Your task to perform on an android device: add a contact Image 0: 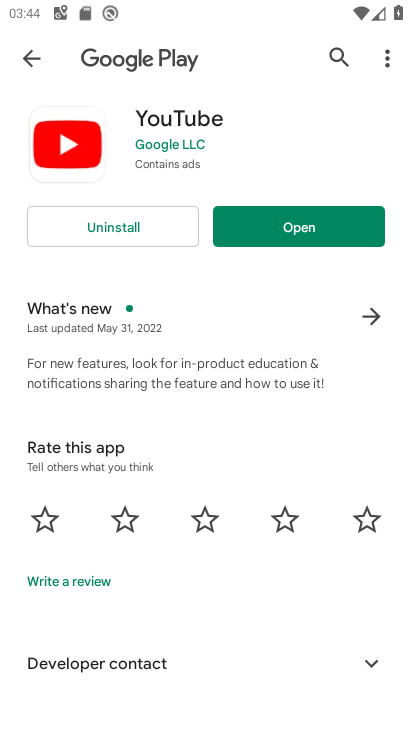
Step 0: press home button
Your task to perform on an android device: add a contact Image 1: 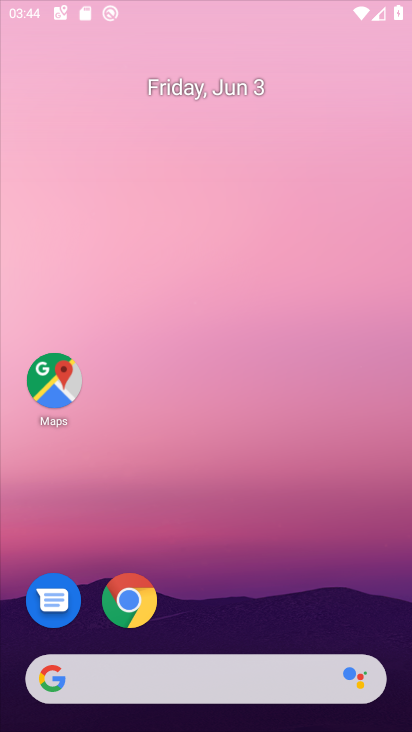
Step 1: drag from (293, 537) to (320, 48)
Your task to perform on an android device: add a contact Image 2: 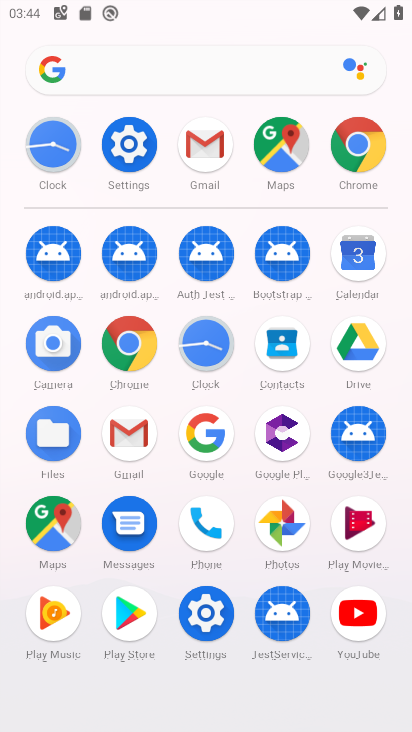
Step 2: click (373, 260)
Your task to perform on an android device: add a contact Image 3: 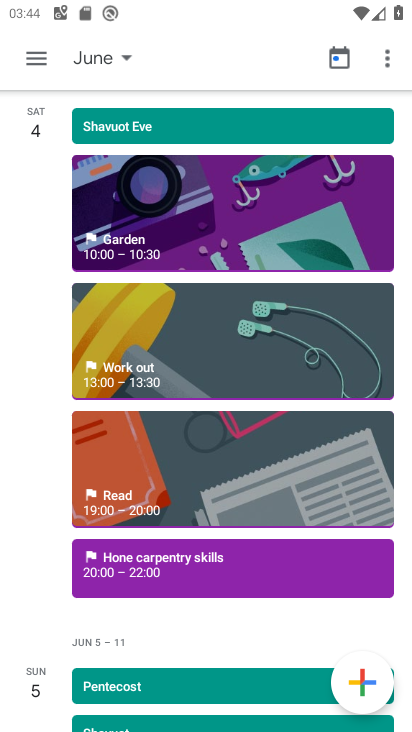
Step 3: press home button
Your task to perform on an android device: add a contact Image 4: 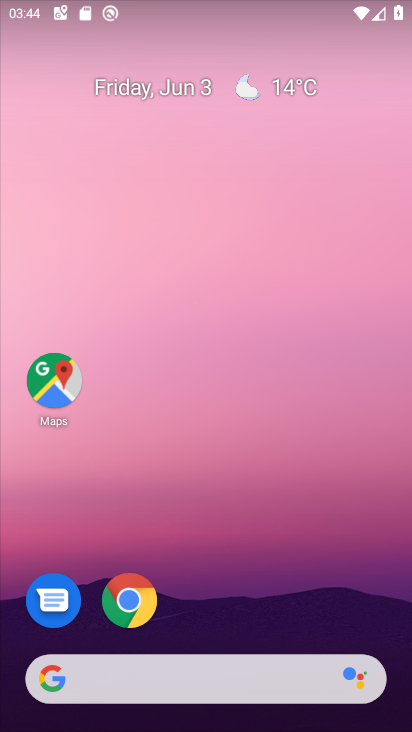
Step 4: drag from (288, 584) to (291, 152)
Your task to perform on an android device: add a contact Image 5: 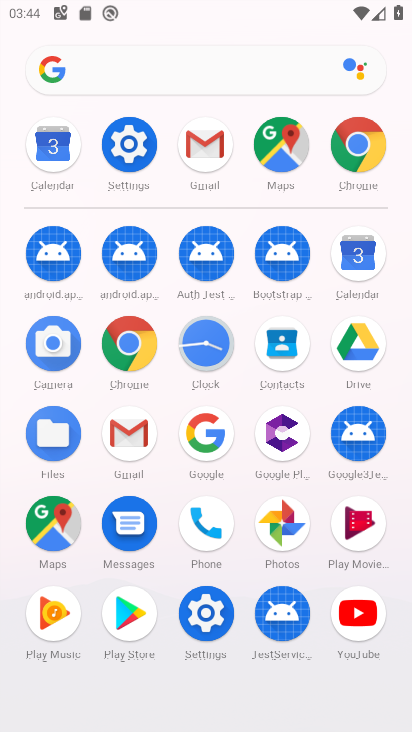
Step 5: click (286, 351)
Your task to perform on an android device: add a contact Image 6: 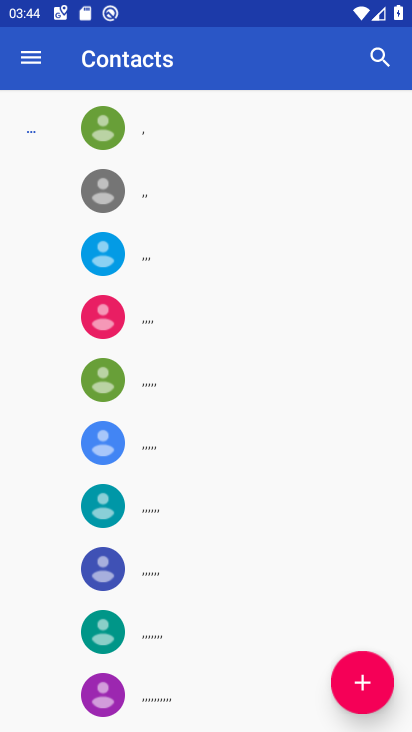
Step 6: click (353, 690)
Your task to perform on an android device: add a contact Image 7: 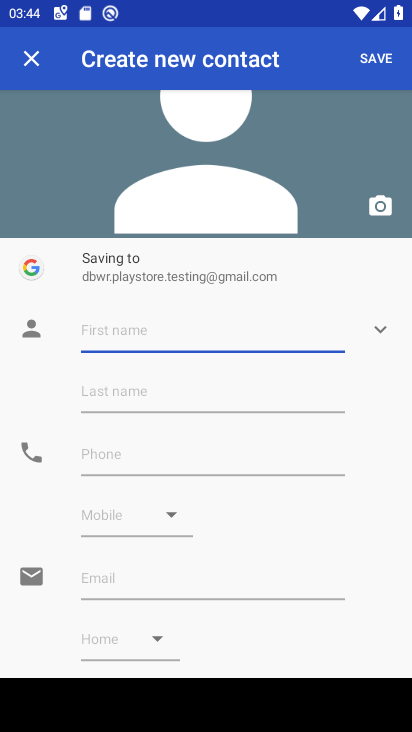
Step 7: type "mohbat"
Your task to perform on an android device: add a contact Image 8: 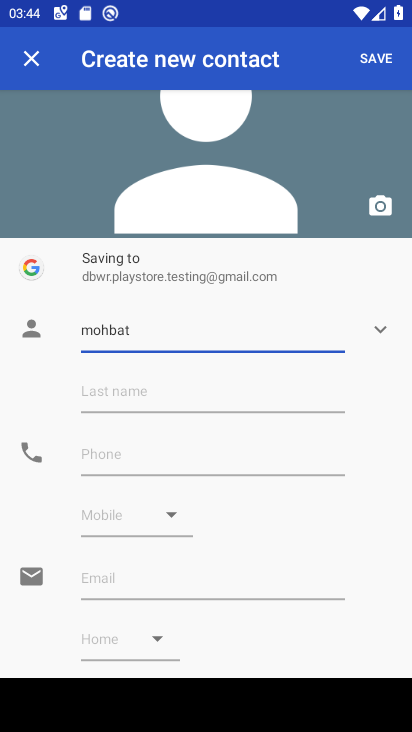
Step 8: click (378, 49)
Your task to perform on an android device: add a contact Image 9: 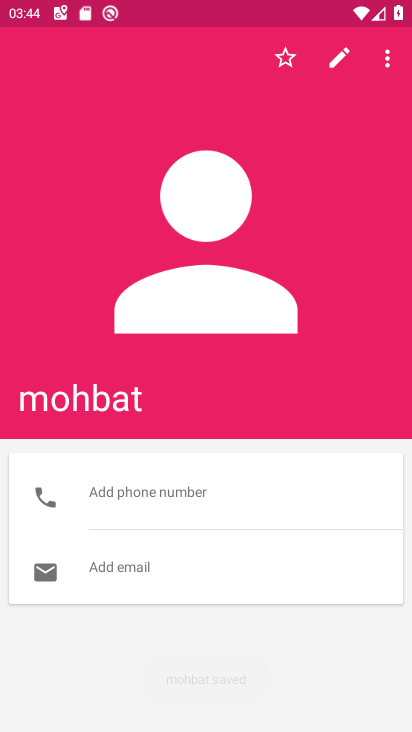
Step 9: task complete